Your task to perform on an android device: turn off notifications in google photos Image 0: 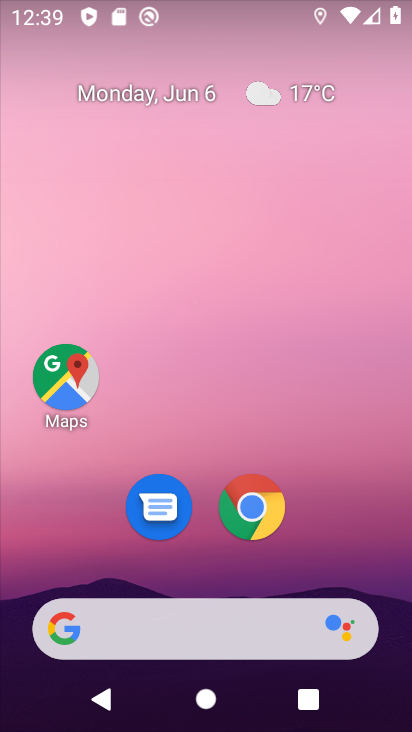
Step 0: click (264, 80)
Your task to perform on an android device: turn off notifications in google photos Image 1: 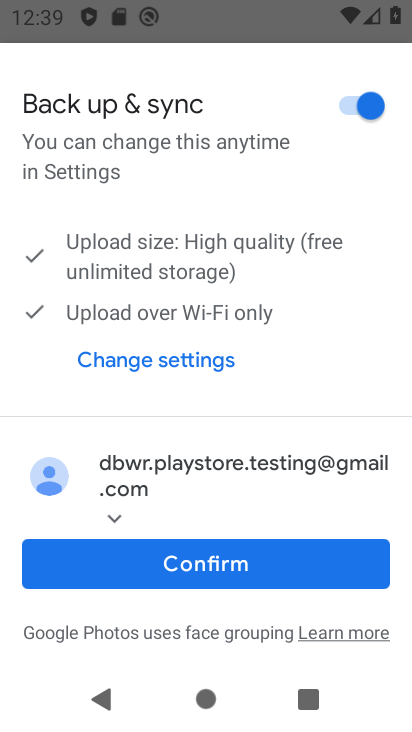
Step 1: click (302, 557)
Your task to perform on an android device: turn off notifications in google photos Image 2: 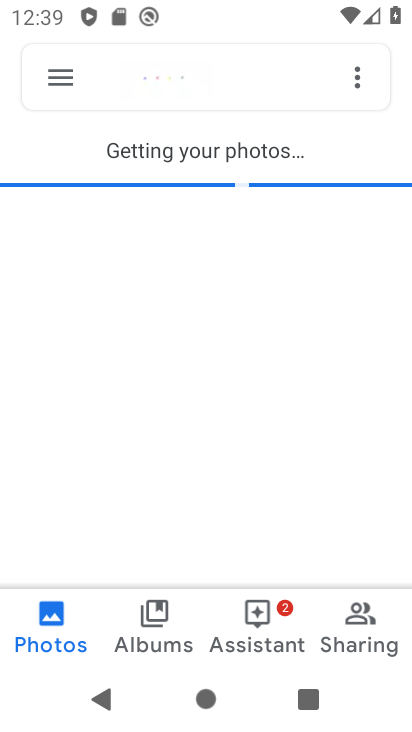
Step 2: click (54, 79)
Your task to perform on an android device: turn off notifications in google photos Image 3: 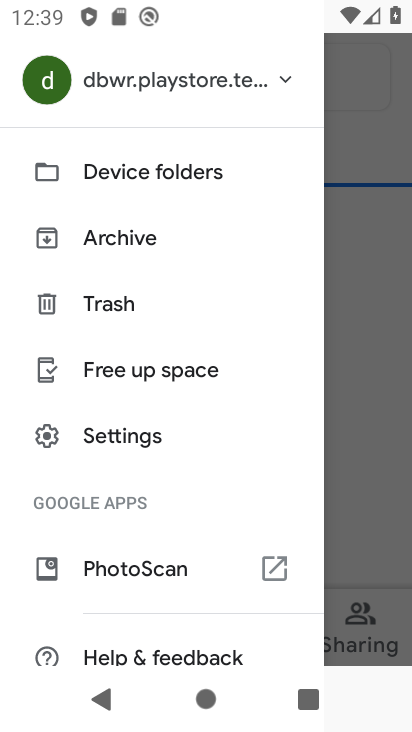
Step 3: click (123, 422)
Your task to perform on an android device: turn off notifications in google photos Image 4: 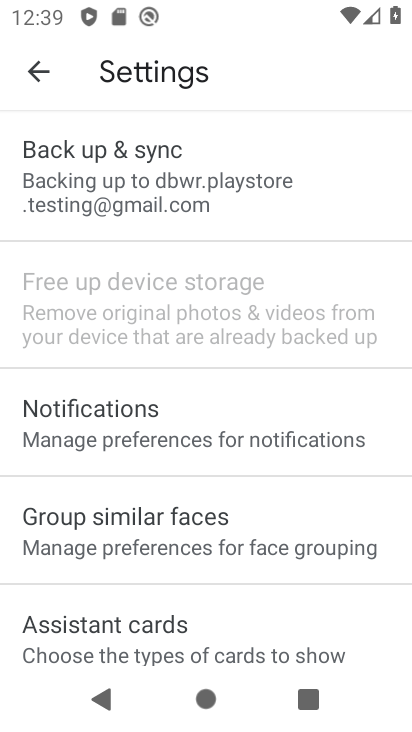
Step 4: click (188, 420)
Your task to perform on an android device: turn off notifications in google photos Image 5: 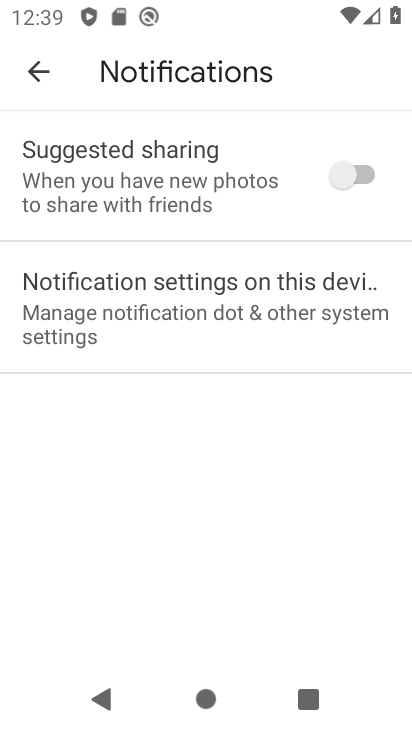
Step 5: click (273, 304)
Your task to perform on an android device: turn off notifications in google photos Image 6: 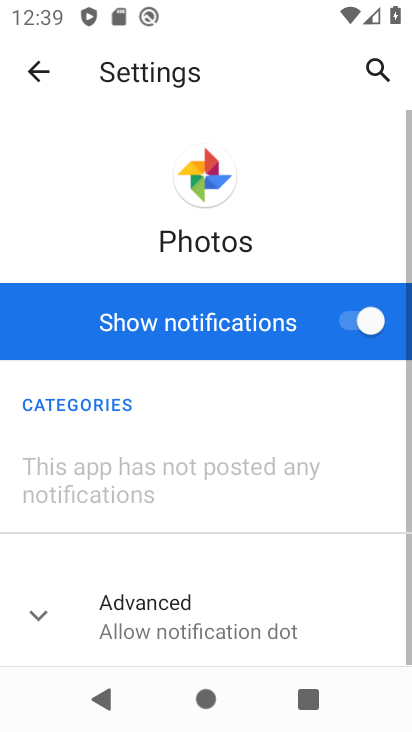
Step 6: click (356, 315)
Your task to perform on an android device: turn off notifications in google photos Image 7: 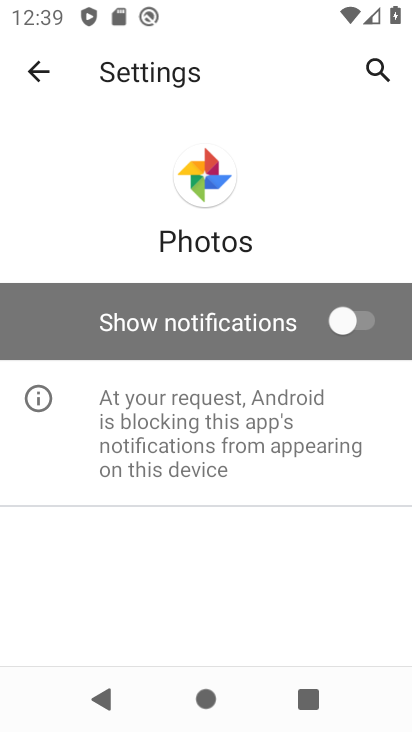
Step 7: task complete